Your task to perform on an android device: Go to Yahoo.com Image 0: 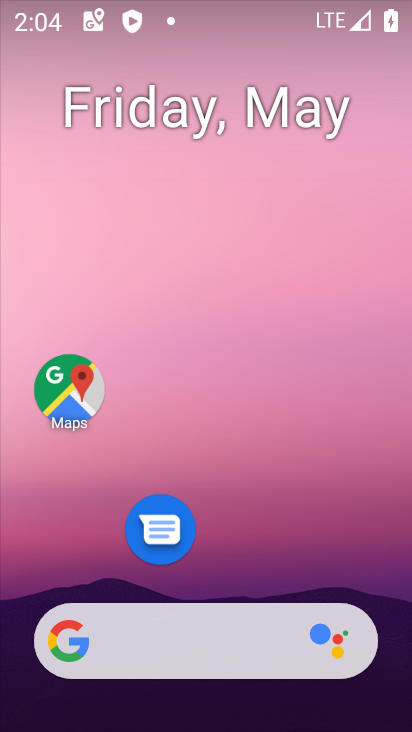
Step 0: drag from (235, 591) to (232, 7)
Your task to perform on an android device: Go to Yahoo.com Image 1: 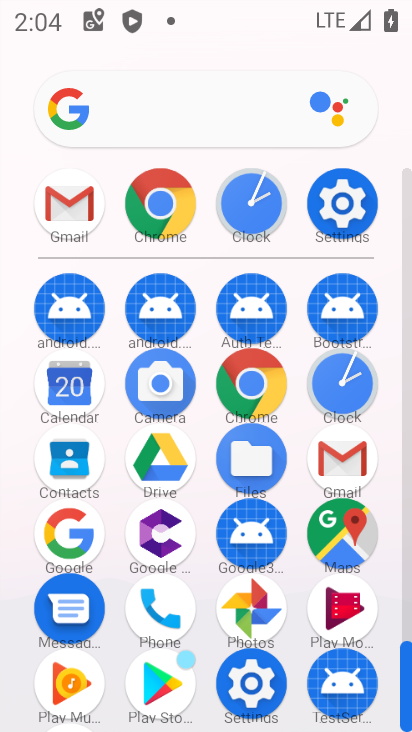
Step 1: click (189, 114)
Your task to perform on an android device: Go to Yahoo.com Image 2: 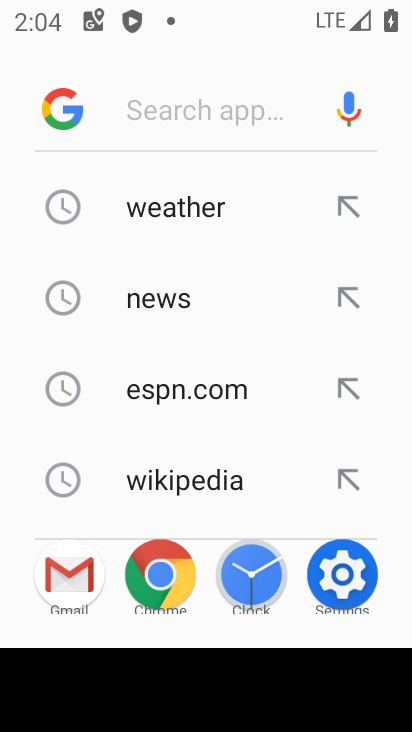
Step 2: type "yahoo.com"
Your task to perform on an android device: Go to Yahoo.com Image 3: 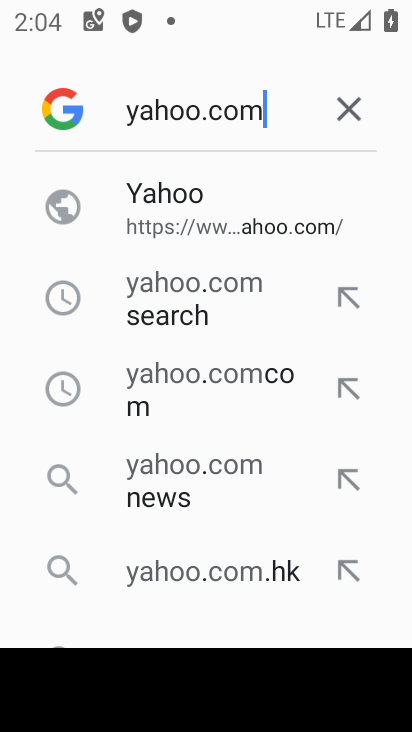
Step 3: click (185, 199)
Your task to perform on an android device: Go to Yahoo.com Image 4: 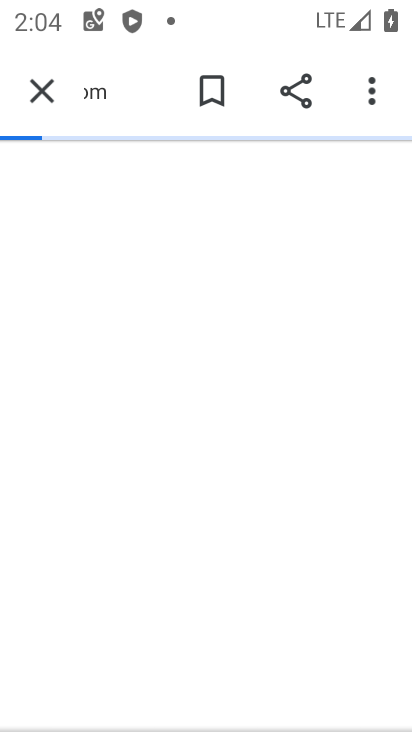
Step 4: task complete